Your task to perform on an android device: toggle airplane mode Image 0: 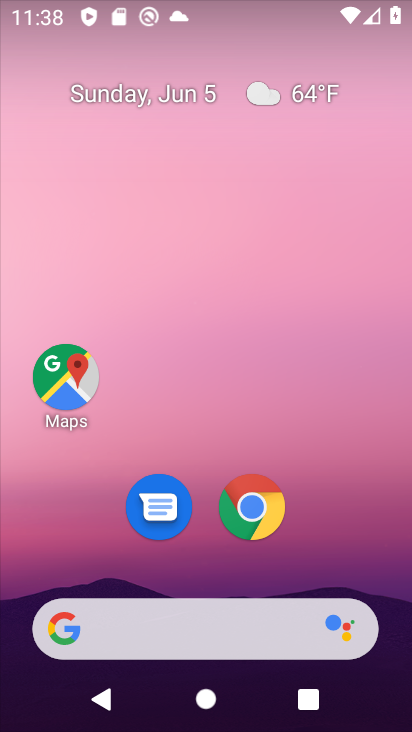
Step 0: drag from (365, 526) to (282, 73)
Your task to perform on an android device: toggle airplane mode Image 1: 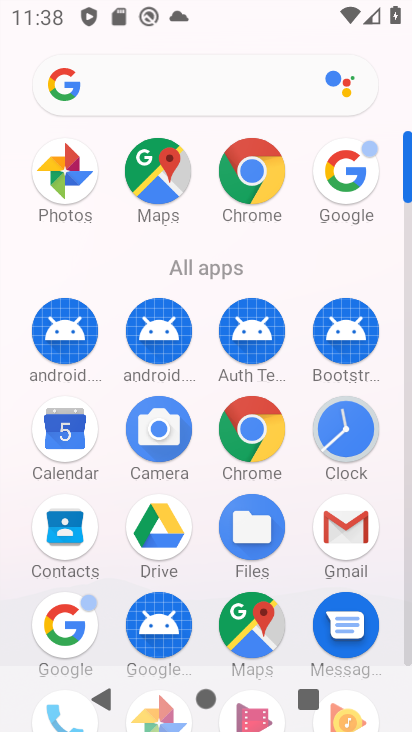
Step 1: drag from (304, 585) to (313, 274)
Your task to perform on an android device: toggle airplane mode Image 2: 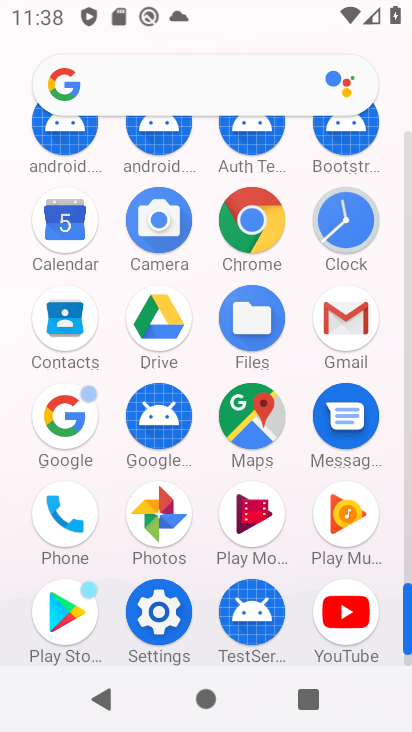
Step 2: click (167, 631)
Your task to perform on an android device: toggle airplane mode Image 3: 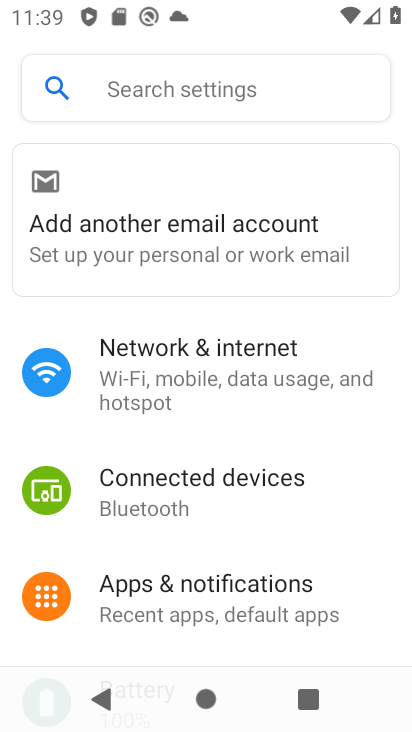
Step 3: click (193, 353)
Your task to perform on an android device: toggle airplane mode Image 4: 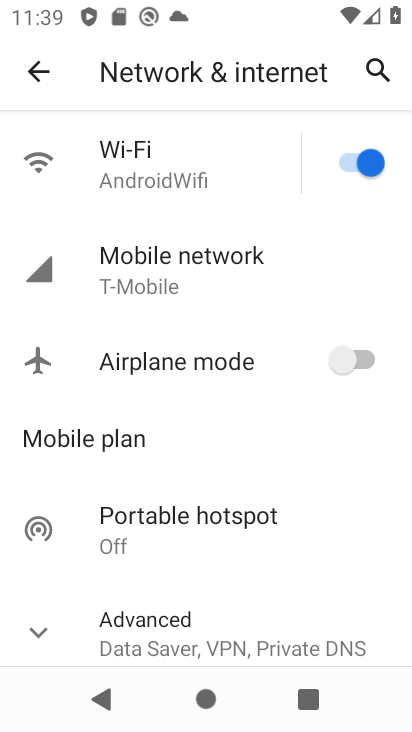
Step 4: click (371, 356)
Your task to perform on an android device: toggle airplane mode Image 5: 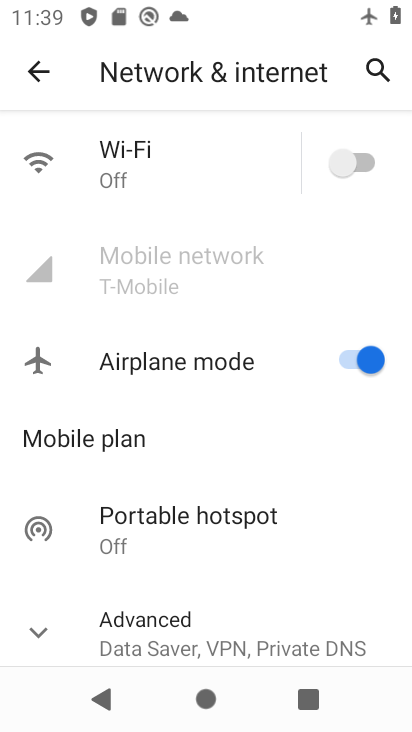
Step 5: task complete